Your task to perform on an android device: Open the map Image 0: 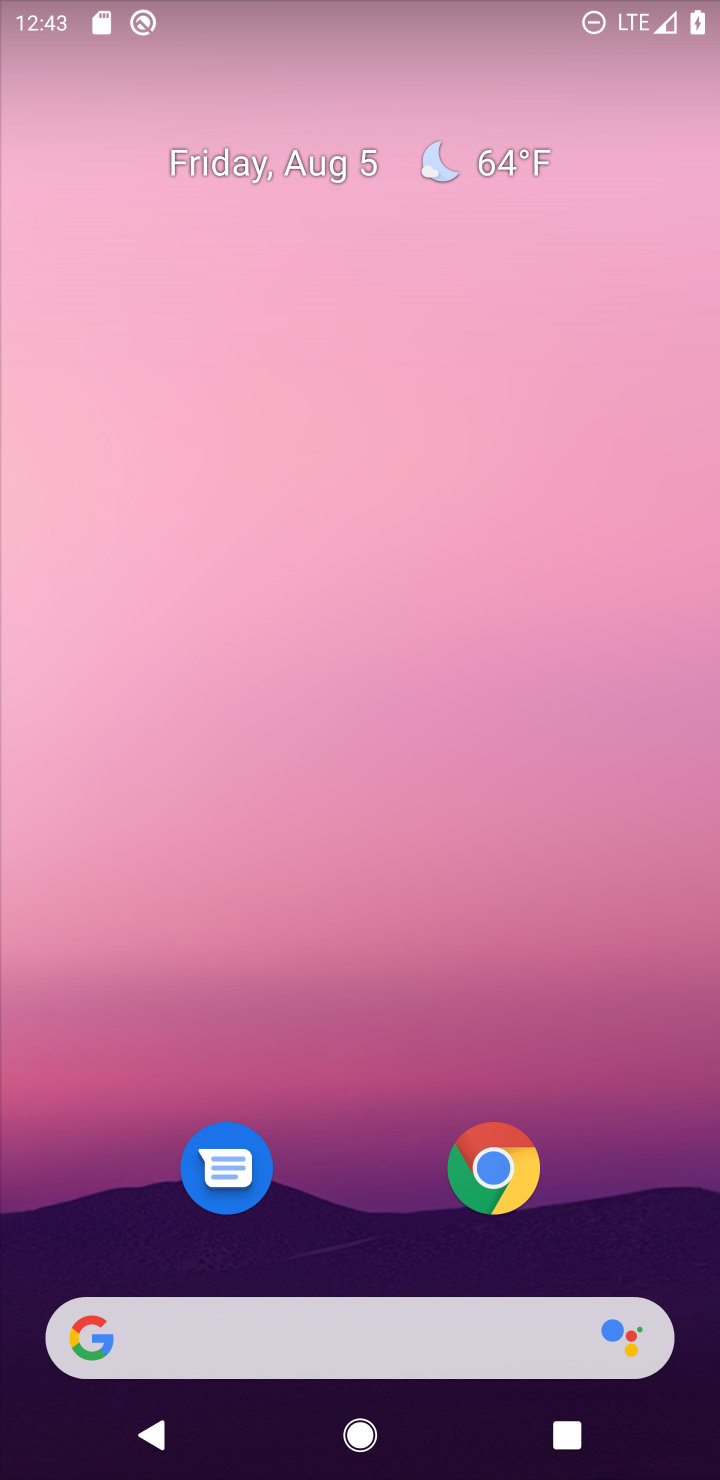
Step 0: drag from (628, 1224) to (0, 360)
Your task to perform on an android device: Open the map Image 1: 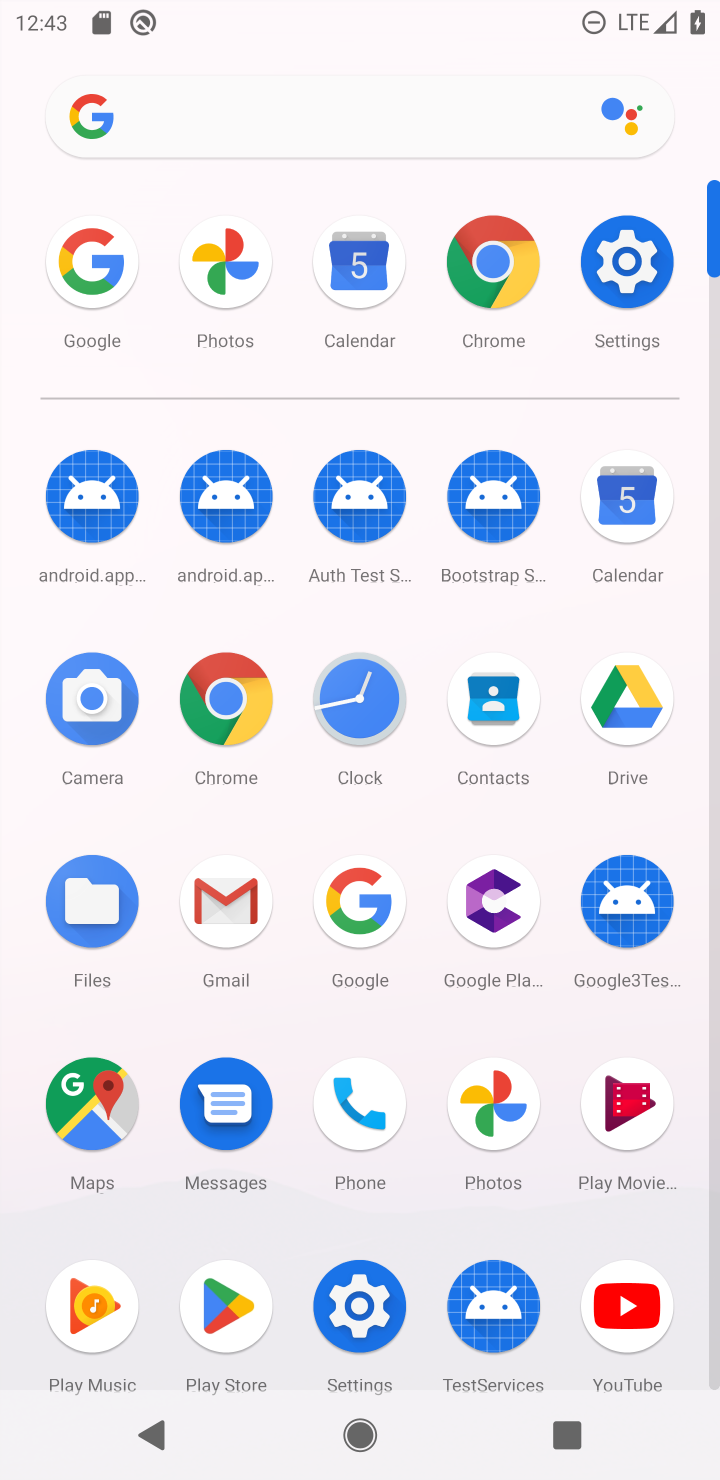
Step 1: click (94, 1124)
Your task to perform on an android device: Open the map Image 2: 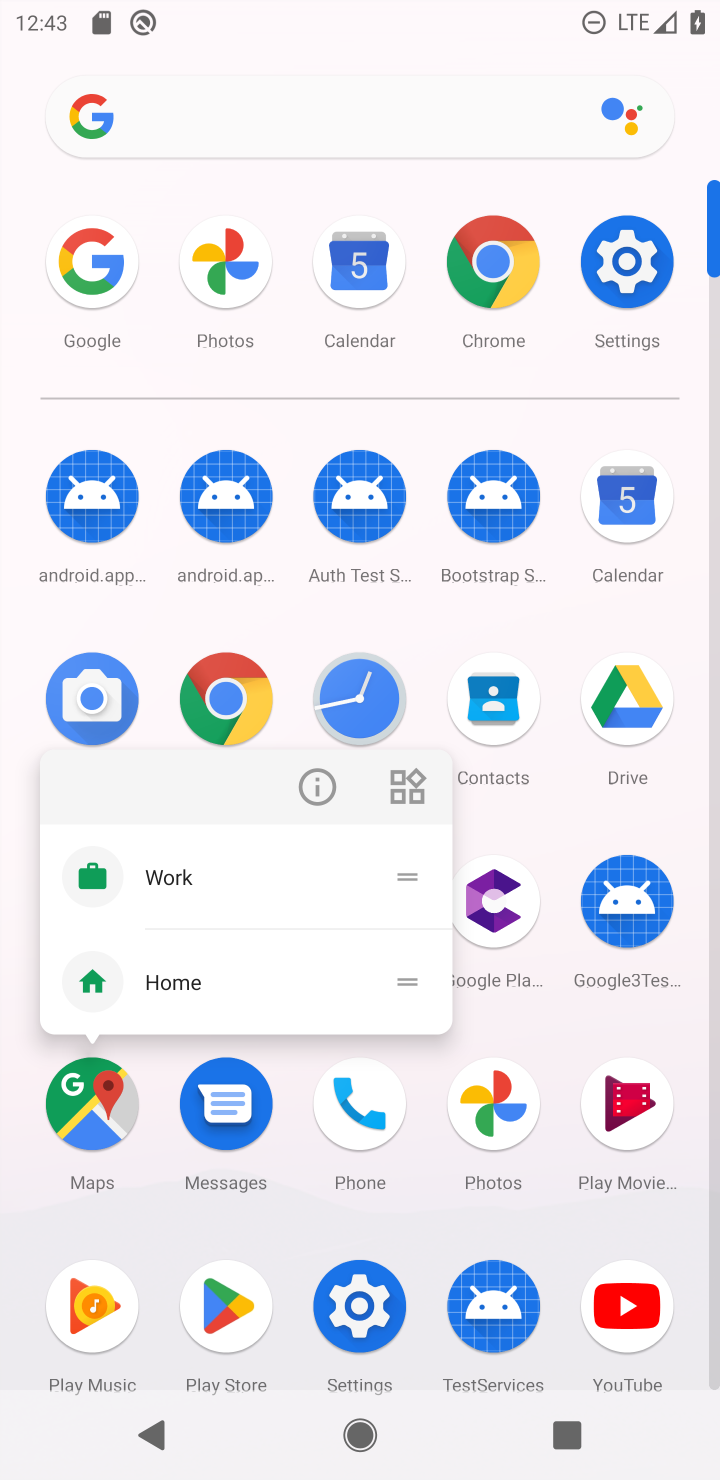
Step 2: click (94, 1124)
Your task to perform on an android device: Open the map Image 3: 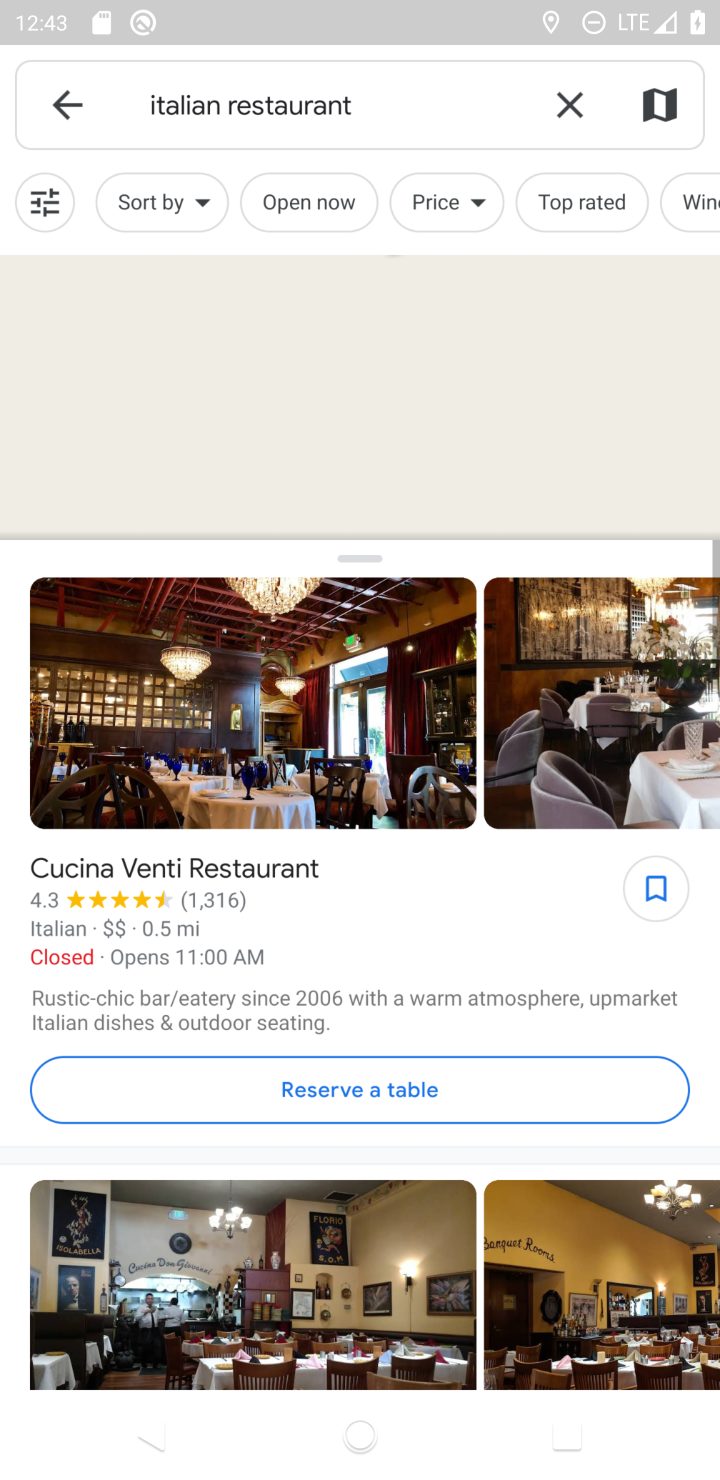
Step 3: task complete